Your task to perform on an android device: Open Google Image 0: 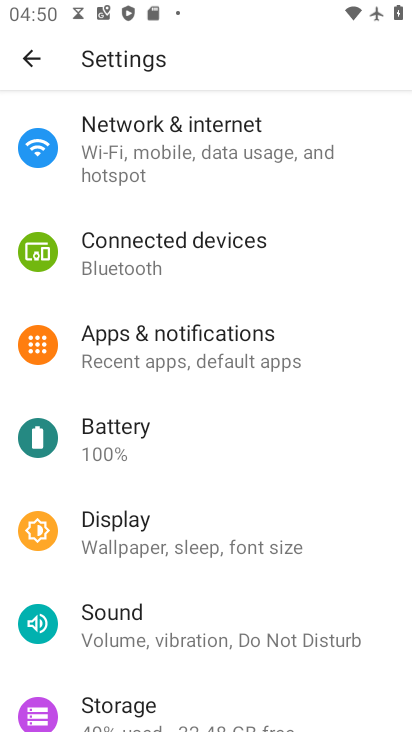
Step 0: press back button
Your task to perform on an android device: Open Google Image 1: 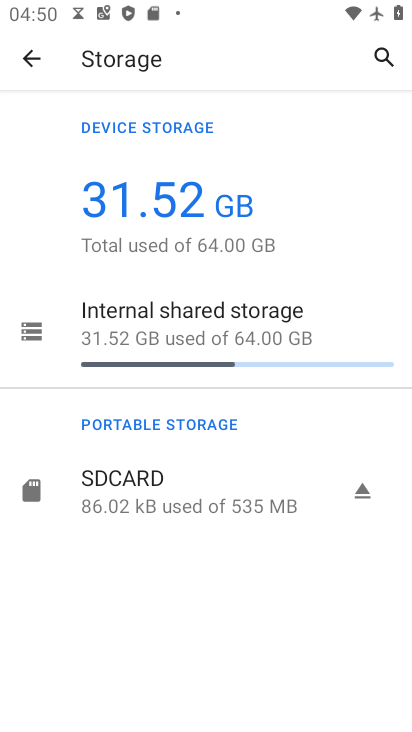
Step 1: press home button
Your task to perform on an android device: Open Google Image 2: 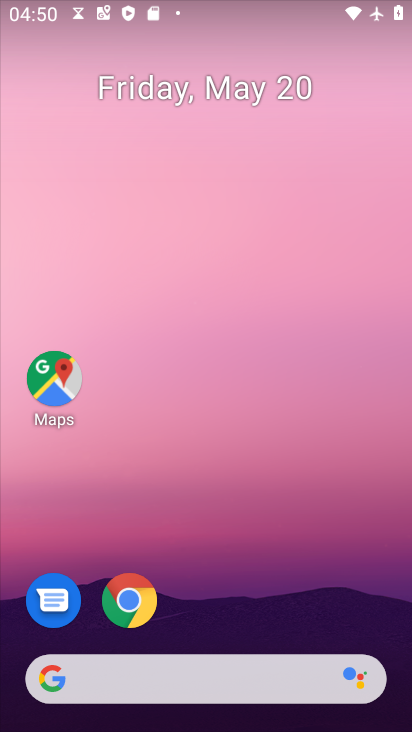
Step 2: drag from (220, 542) to (214, 23)
Your task to perform on an android device: Open Google Image 3: 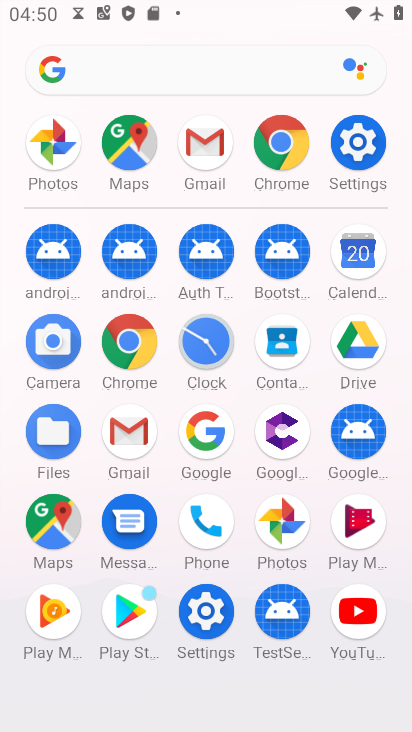
Step 3: click (123, 340)
Your task to perform on an android device: Open Google Image 4: 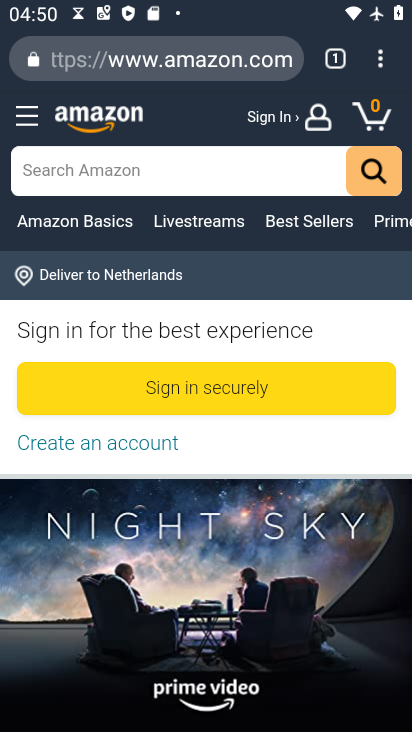
Step 4: click (183, 63)
Your task to perform on an android device: Open Google Image 5: 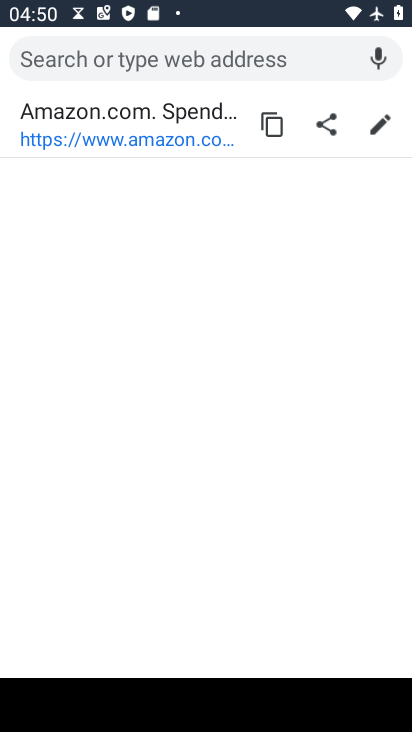
Step 5: type "Google"
Your task to perform on an android device: Open Google Image 6: 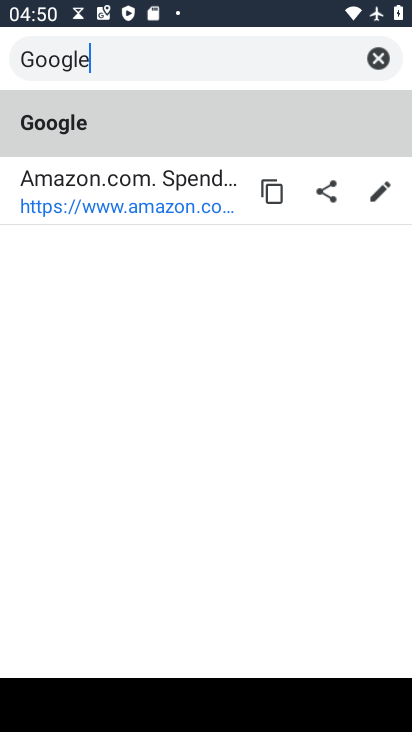
Step 6: type ""
Your task to perform on an android device: Open Google Image 7: 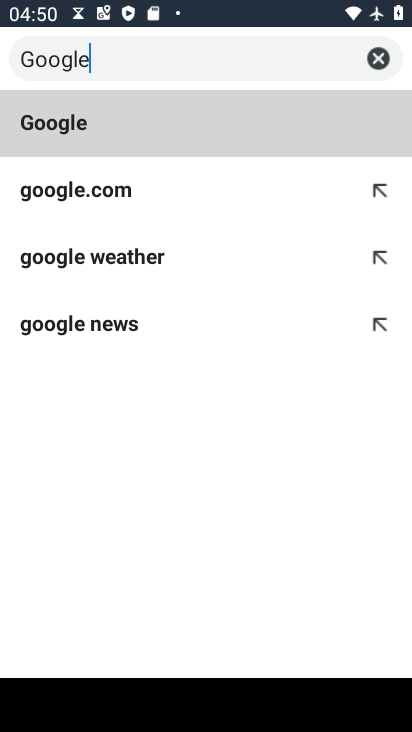
Step 7: click (99, 195)
Your task to perform on an android device: Open Google Image 8: 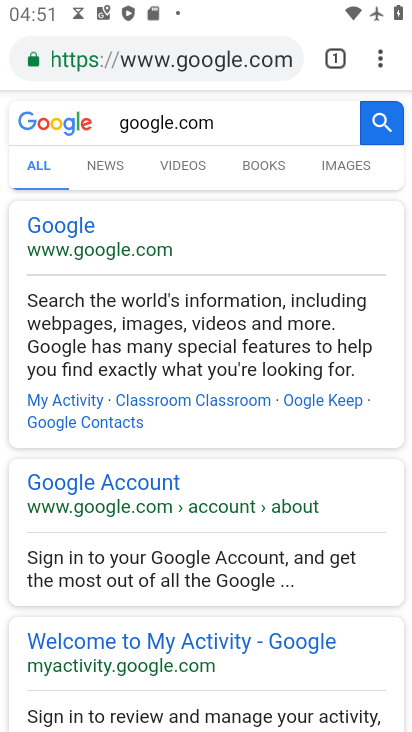
Step 8: click (114, 167)
Your task to perform on an android device: Open Google Image 9: 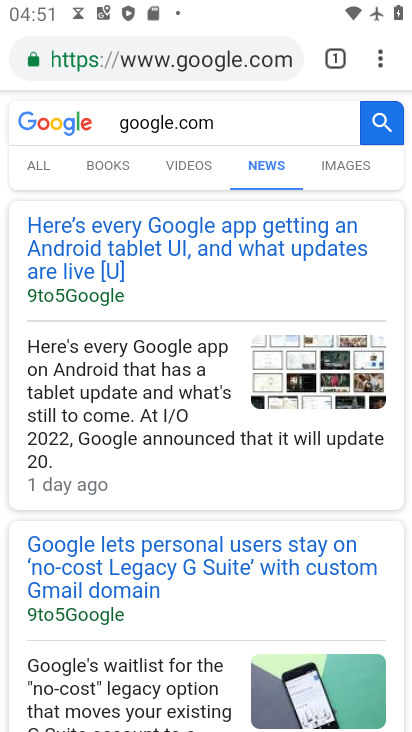
Step 9: task complete